Your task to perform on an android device: delete browsing data in the chrome app Image 0: 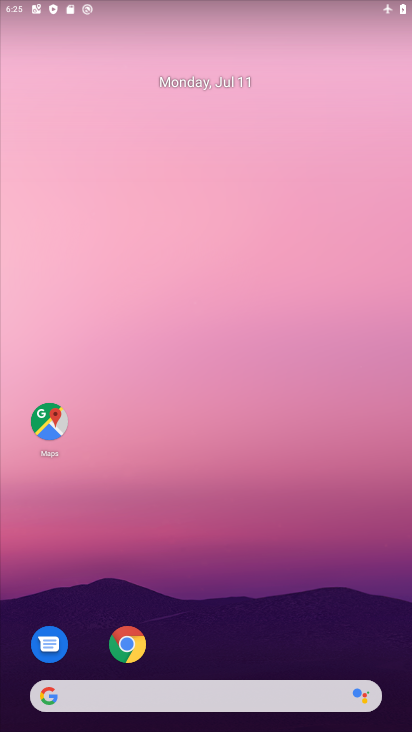
Step 0: drag from (91, 684) to (73, 7)
Your task to perform on an android device: delete browsing data in the chrome app Image 1: 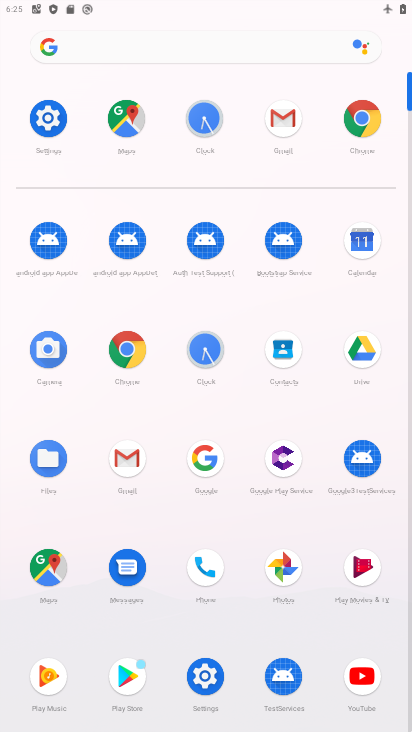
Step 1: click (127, 351)
Your task to perform on an android device: delete browsing data in the chrome app Image 2: 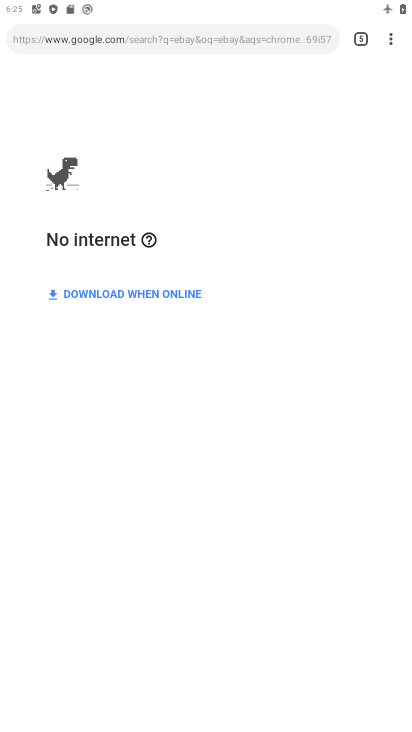
Step 2: press home button
Your task to perform on an android device: delete browsing data in the chrome app Image 3: 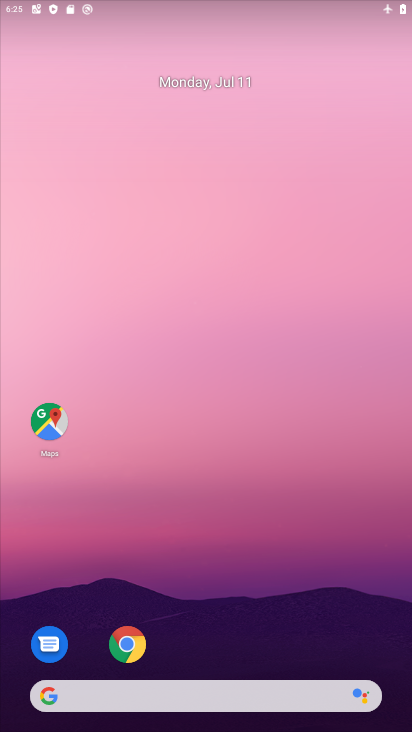
Step 3: drag from (241, 409) to (237, 74)
Your task to perform on an android device: delete browsing data in the chrome app Image 4: 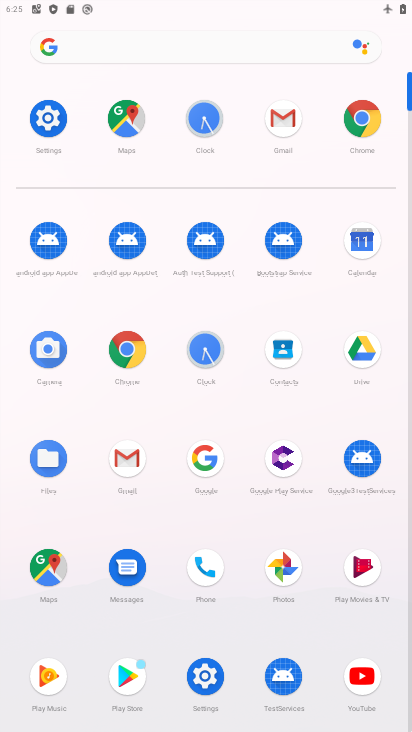
Step 4: click (125, 355)
Your task to perform on an android device: delete browsing data in the chrome app Image 5: 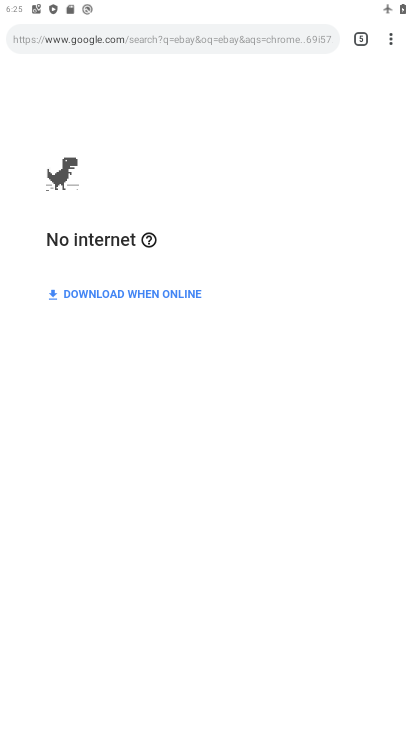
Step 5: drag from (390, 29) to (249, 217)
Your task to perform on an android device: delete browsing data in the chrome app Image 6: 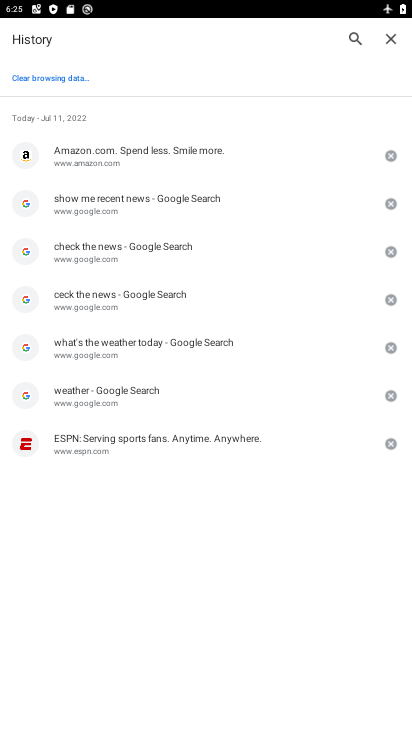
Step 6: click (35, 72)
Your task to perform on an android device: delete browsing data in the chrome app Image 7: 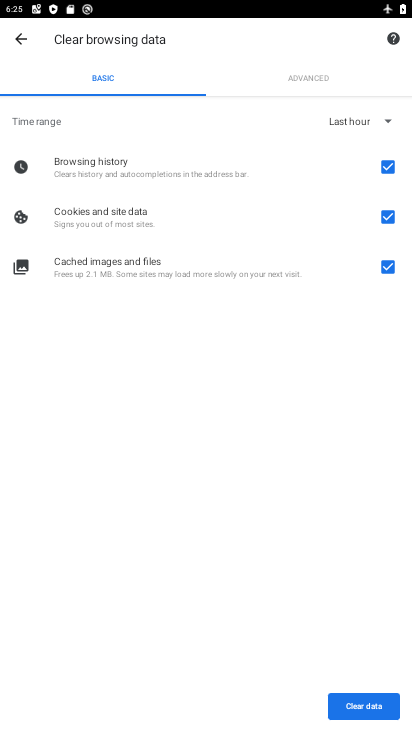
Step 7: click (374, 707)
Your task to perform on an android device: delete browsing data in the chrome app Image 8: 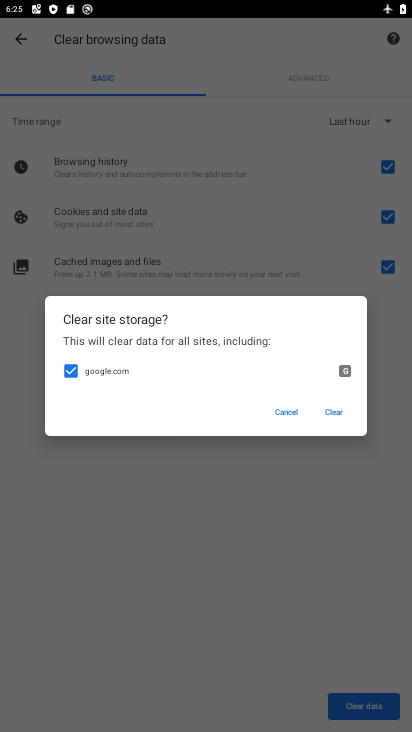
Step 8: click (330, 408)
Your task to perform on an android device: delete browsing data in the chrome app Image 9: 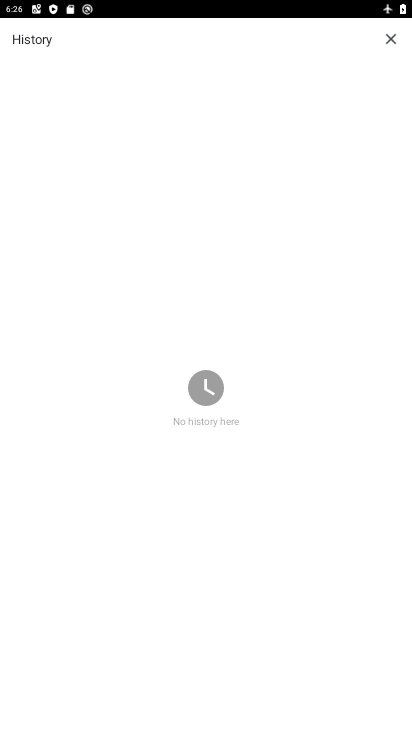
Step 9: task complete